Your task to perform on an android device: Play the last video I watched on Youtube Image 0: 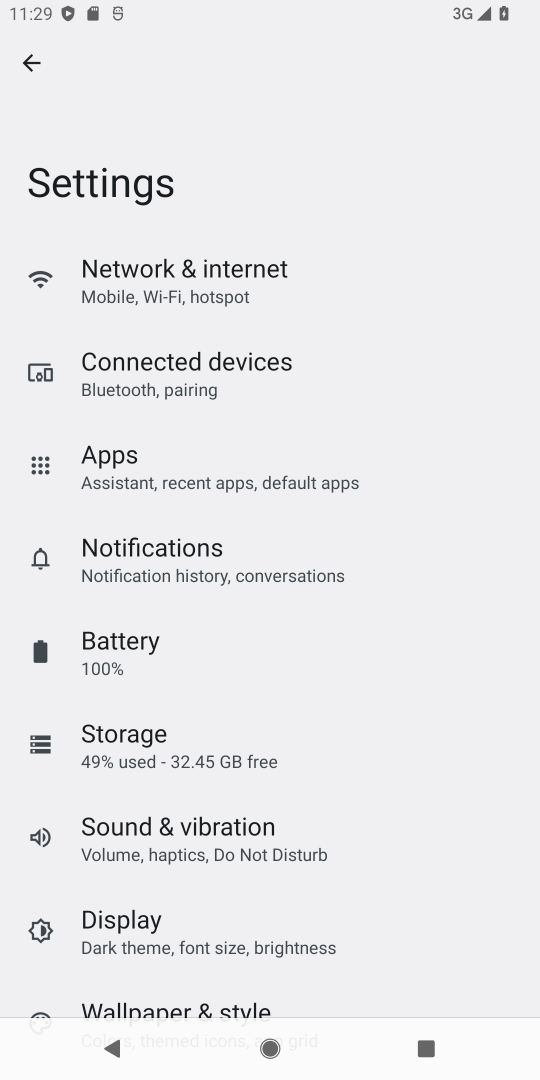
Step 0: press home button
Your task to perform on an android device: Play the last video I watched on Youtube Image 1: 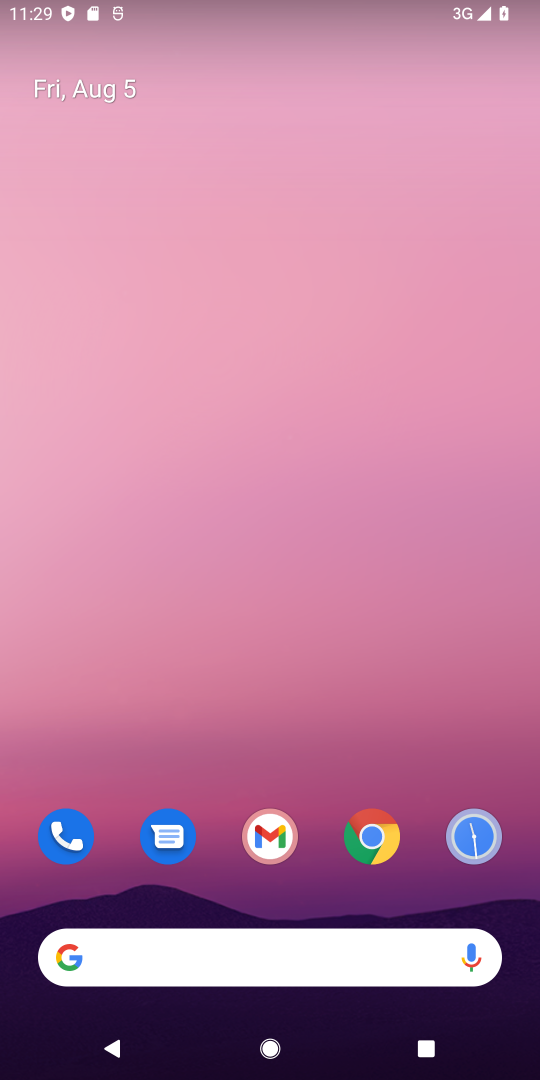
Step 1: drag from (437, 724) to (449, 136)
Your task to perform on an android device: Play the last video I watched on Youtube Image 2: 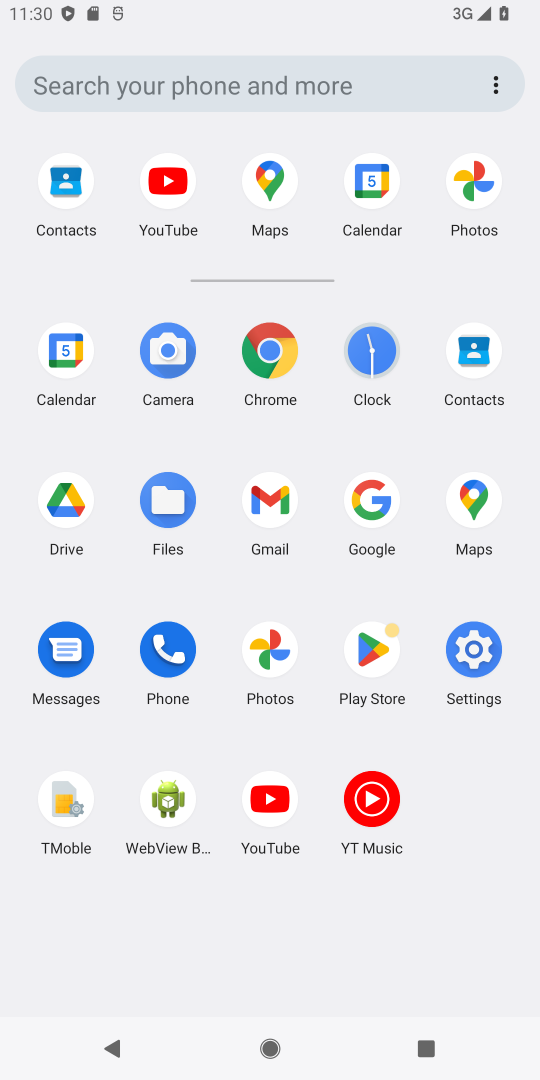
Step 2: click (259, 797)
Your task to perform on an android device: Play the last video I watched on Youtube Image 3: 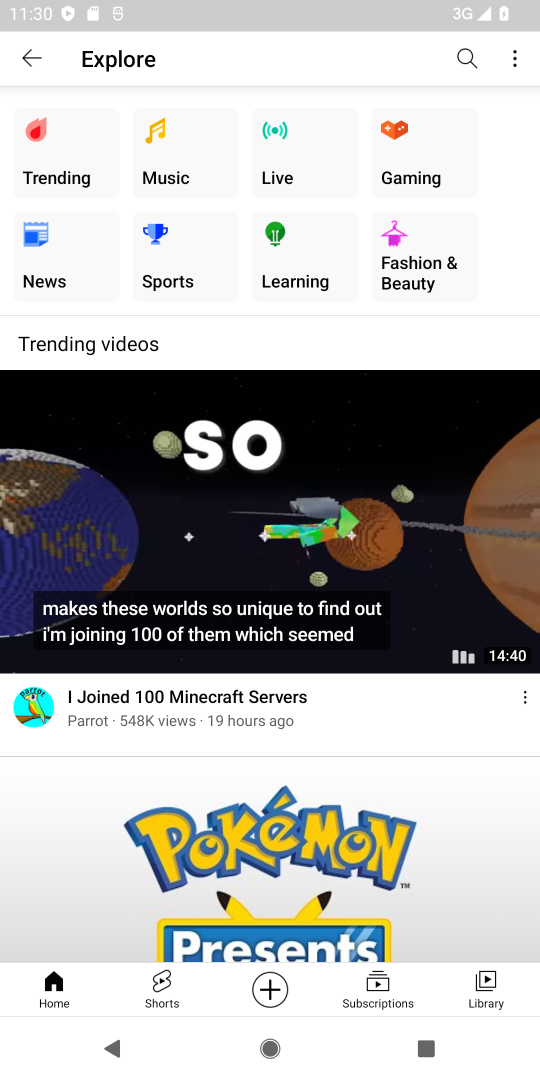
Step 3: click (41, 47)
Your task to perform on an android device: Play the last video I watched on Youtube Image 4: 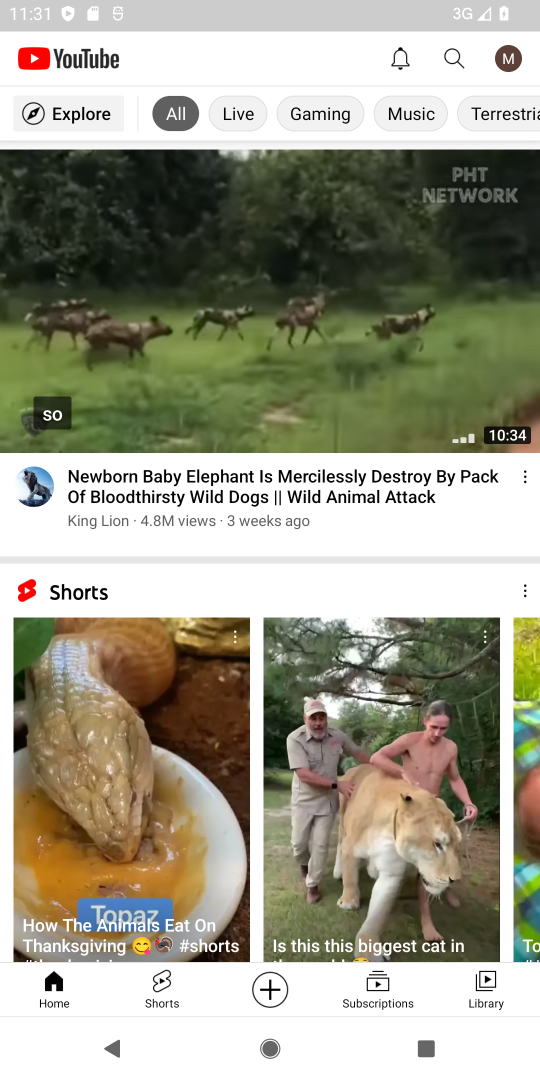
Step 4: click (506, 990)
Your task to perform on an android device: Play the last video I watched on Youtube Image 5: 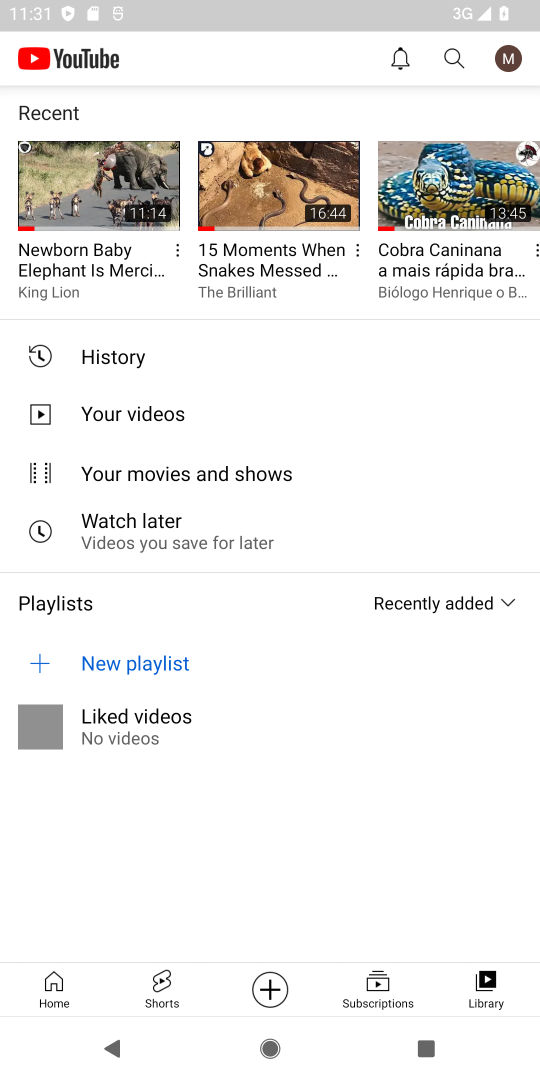
Step 5: click (99, 171)
Your task to perform on an android device: Play the last video I watched on Youtube Image 6: 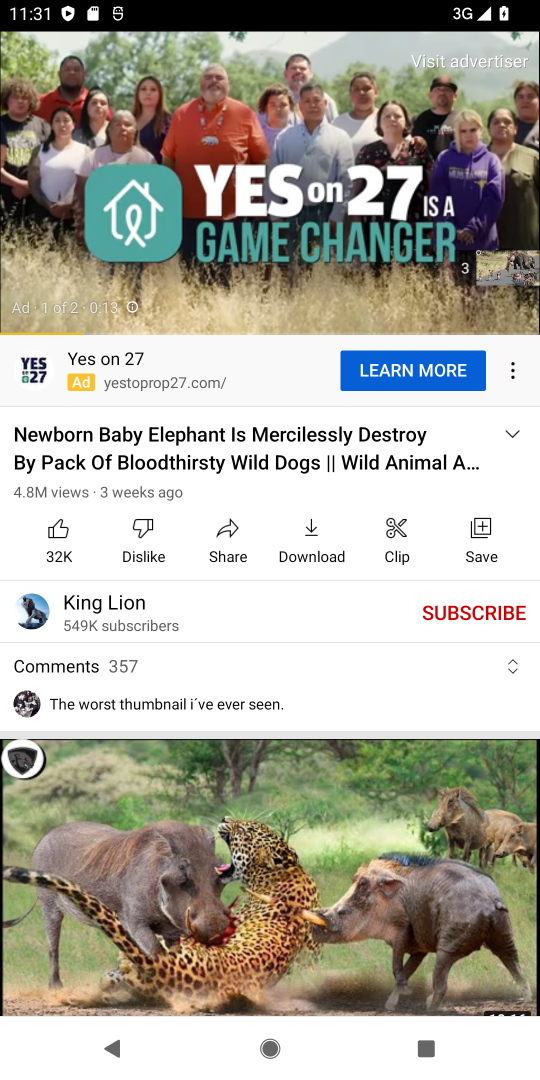
Step 6: task complete